Your task to perform on an android device: delete browsing data in the chrome app Image 0: 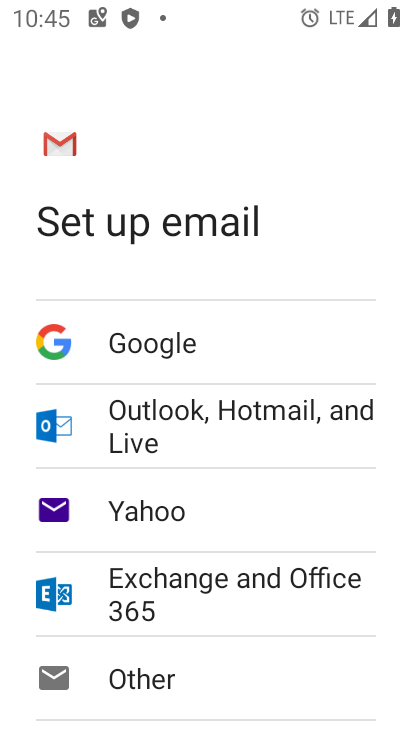
Step 0: press home button
Your task to perform on an android device: delete browsing data in the chrome app Image 1: 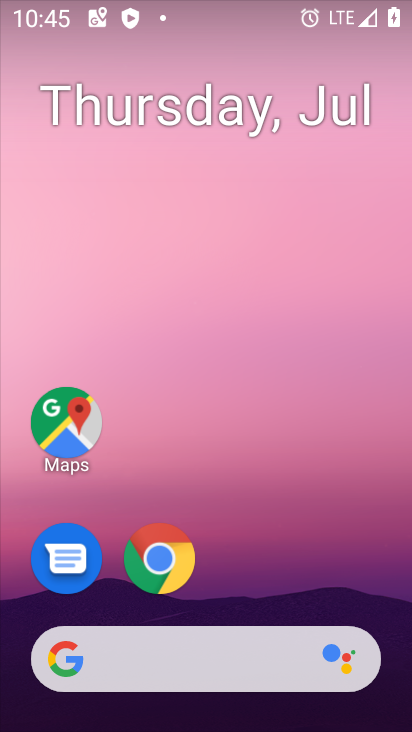
Step 1: drag from (316, 562) to (341, 58)
Your task to perform on an android device: delete browsing data in the chrome app Image 2: 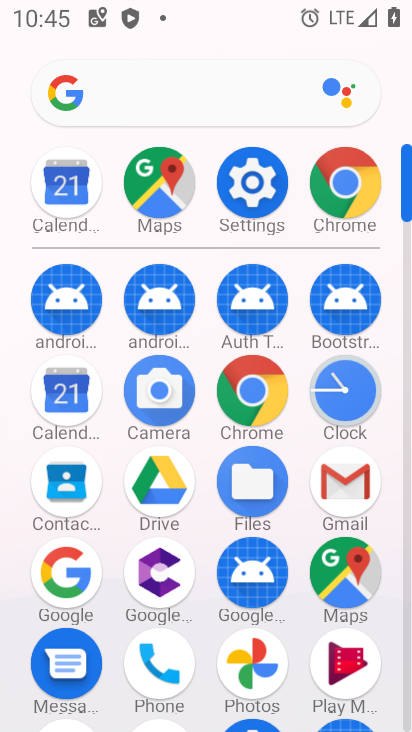
Step 2: click (341, 200)
Your task to perform on an android device: delete browsing data in the chrome app Image 3: 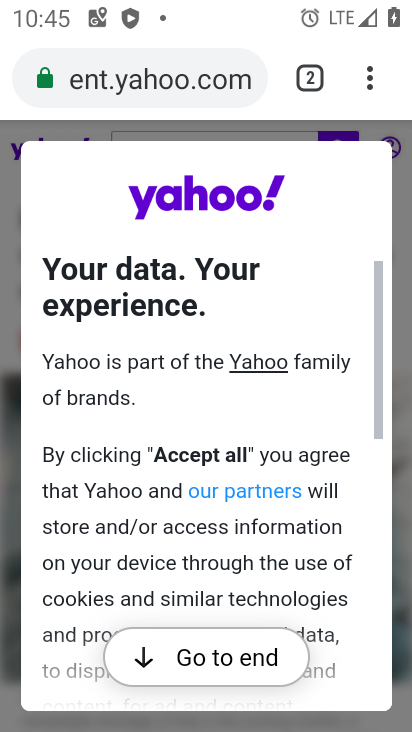
Step 3: click (365, 94)
Your task to perform on an android device: delete browsing data in the chrome app Image 4: 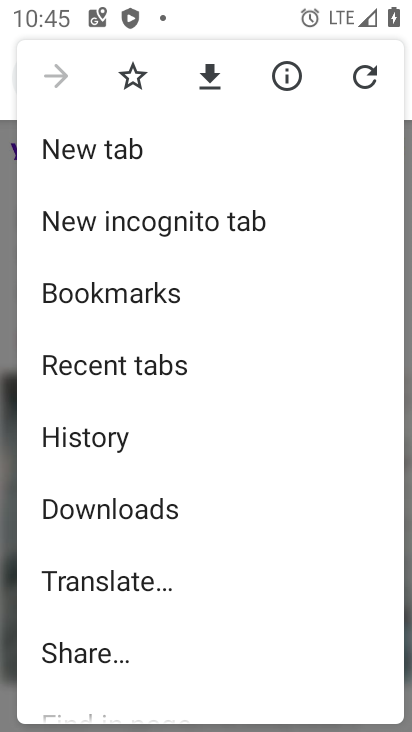
Step 4: drag from (315, 472) to (326, 314)
Your task to perform on an android device: delete browsing data in the chrome app Image 5: 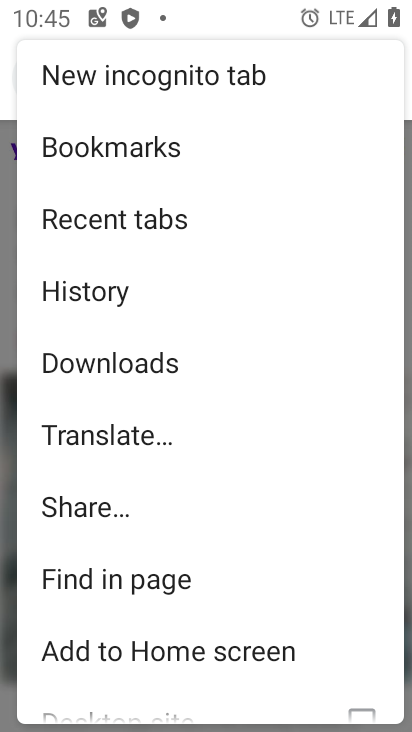
Step 5: drag from (306, 470) to (318, 360)
Your task to perform on an android device: delete browsing data in the chrome app Image 6: 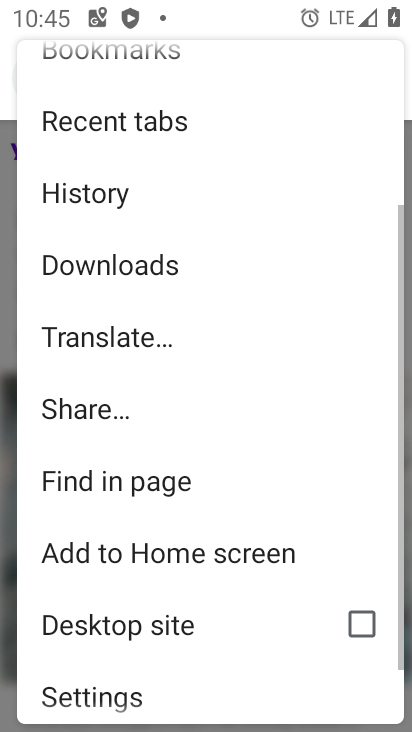
Step 6: drag from (317, 471) to (319, 296)
Your task to perform on an android device: delete browsing data in the chrome app Image 7: 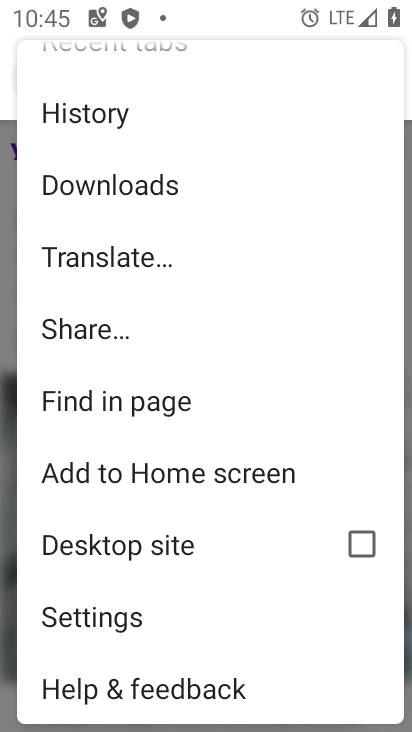
Step 7: click (276, 615)
Your task to perform on an android device: delete browsing data in the chrome app Image 8: 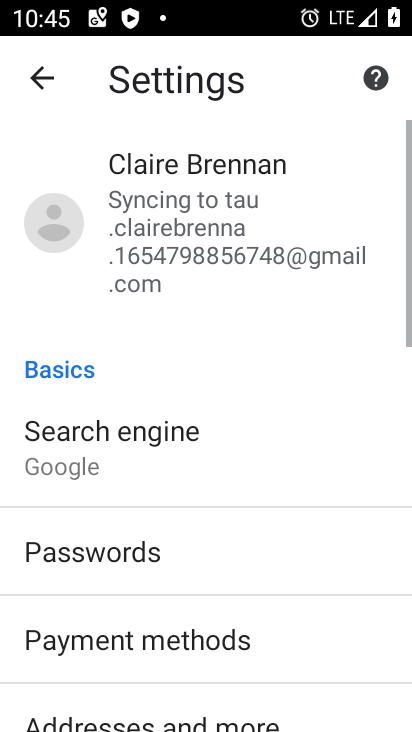
Step 8: drag from (300, 584) to (306, 470)
Your task to perform on an android device: delete browsing data in the chrome app Image 9: 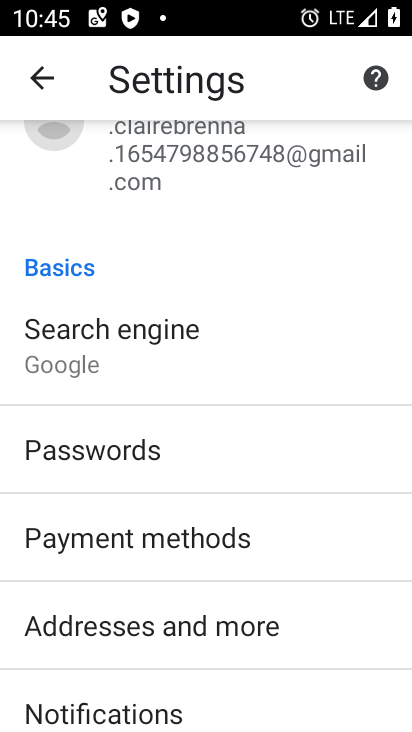
Step 9: drag from (317, 613) to (321, 515)
Your task to perform on an android device: delete browsing data in the chrome app Image 10: 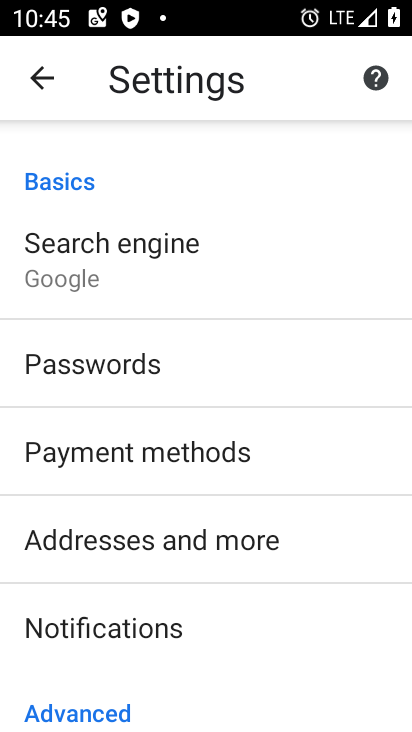
Step 10: drag from (320, 615) to (325, 520)
Your task to perform on an android device: delete browsing data in the chrome app Image 11: 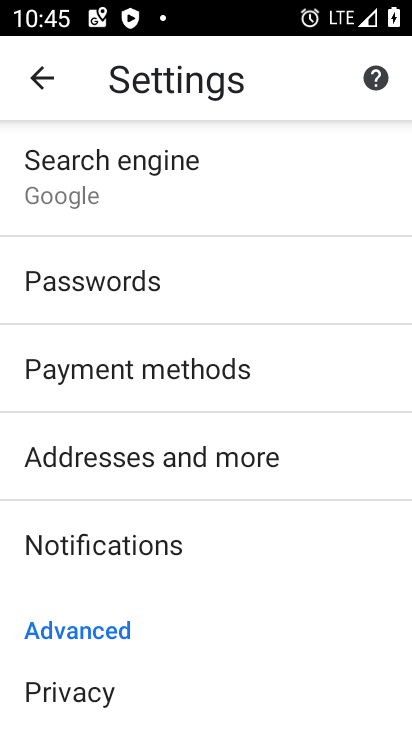
Step 11: drag from (331, 596) to (332, 521)
Your task to perform on an android device: delete browsing data in the chrome app Image 12: 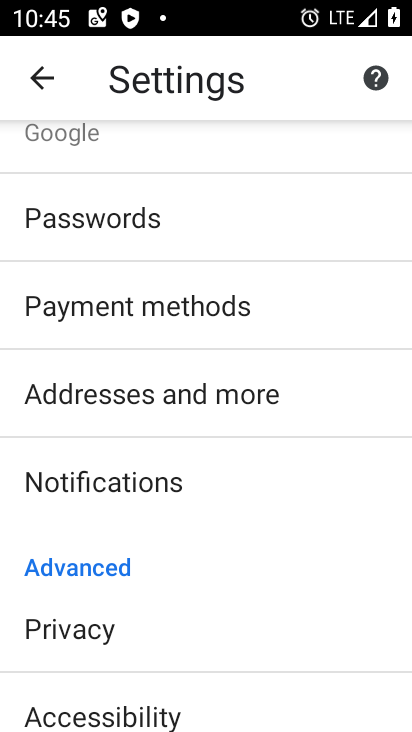
Step 12: drag from (320, 616) to (317, 482)
Your task to perform on an android device: delete browsing data in the chrome app Image 13: 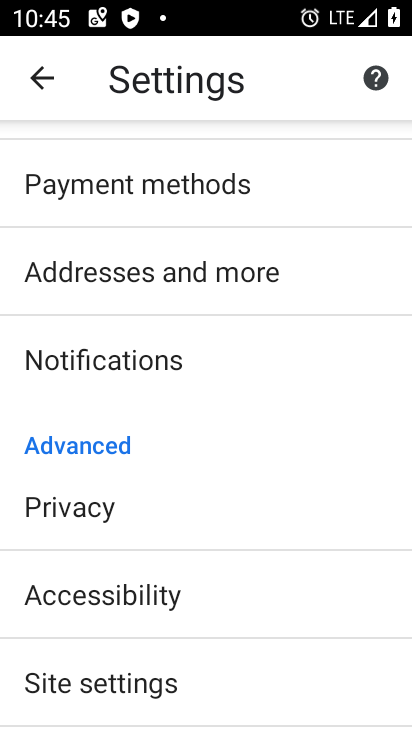
Step 13: drag from (311, 580) to (311, 470)
Your task to perform on an android device: delete browsing data in the chrome app Image 14: 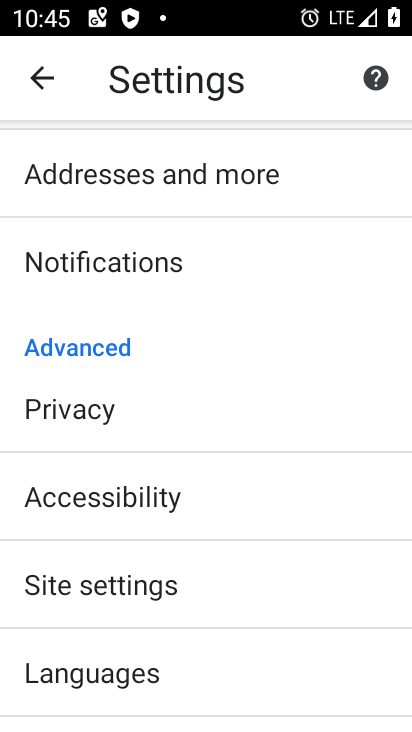
Step 14: drag from (312, 589) to (327, 410)
Your task to perform on an android device: delete browsing data in the chrome app Image 15: 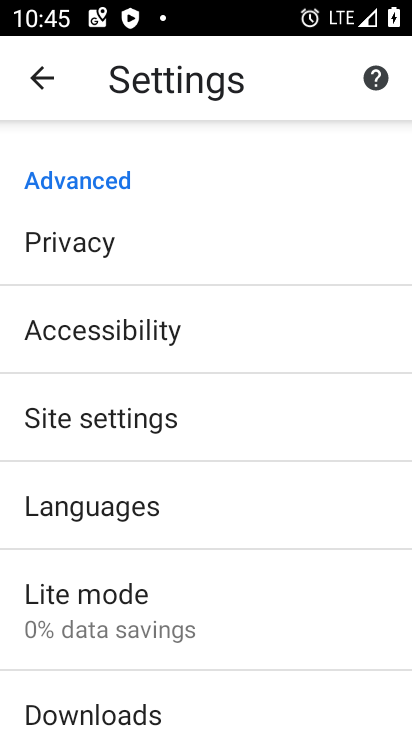
Step 15: click (278, 244)
Your task to perform on an android device: delete browsing data in the chrome app Image 16: 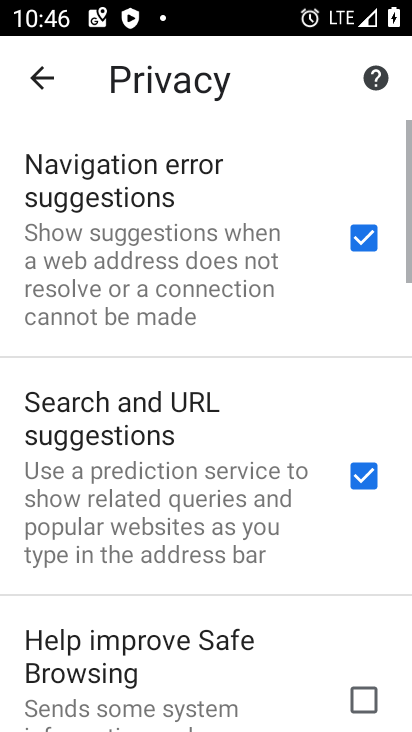
Step 16: drag from (296, 471) to (294, 360)
Your task to perform on an android device: delete browsing data in the chrome app Image 17: 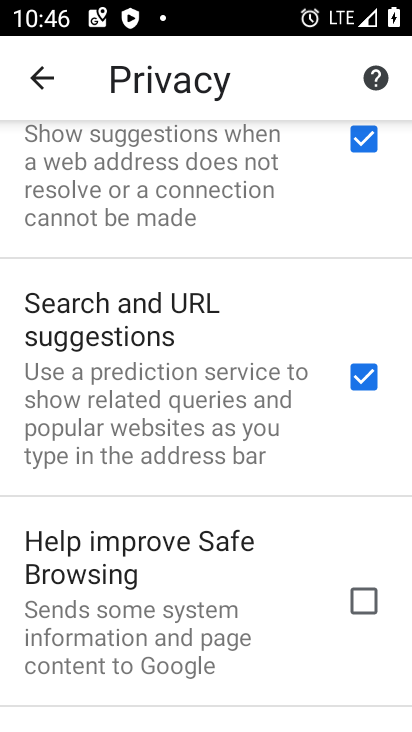
Step 17: drag from (293, 525) to (296, 428)
Your task to perform on an android device: delete browsing data in the chrome app Image 18: 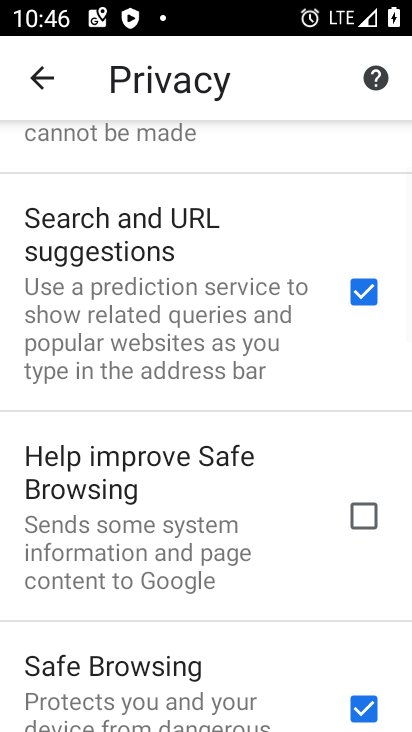
Step 18: drag from (288, 566) to (280, 419)
Your task to perform on an android device: delete browsing data in the chrome app Image 19: 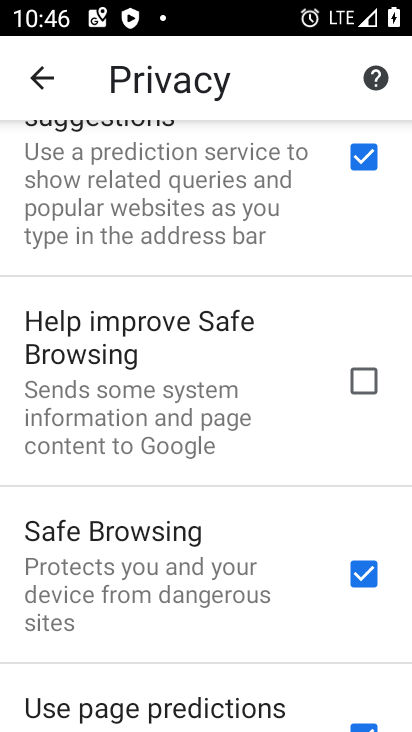
Step 19: drag from (289, 574) to (289, 441)
Your task to perform on an android device: delete browsing data in the chrome app Image 20: 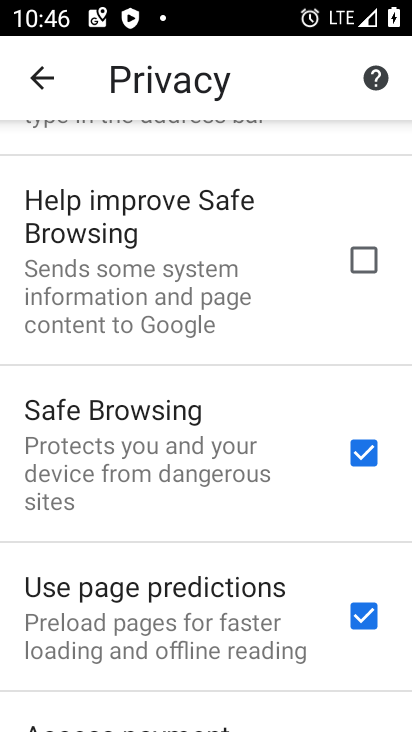
Step 20: drag from (279, 627) to (273, 465)
Your task to perform on an android device: delete browsing data in the chrome app Image 21: 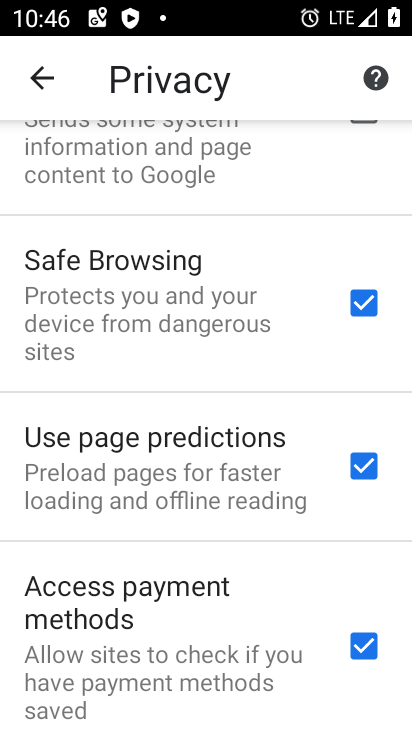
Step 21: drag from (274, 614) to (280, 469)
Your task to perform on an android device: delete browsing data in the chrome app Image 22: 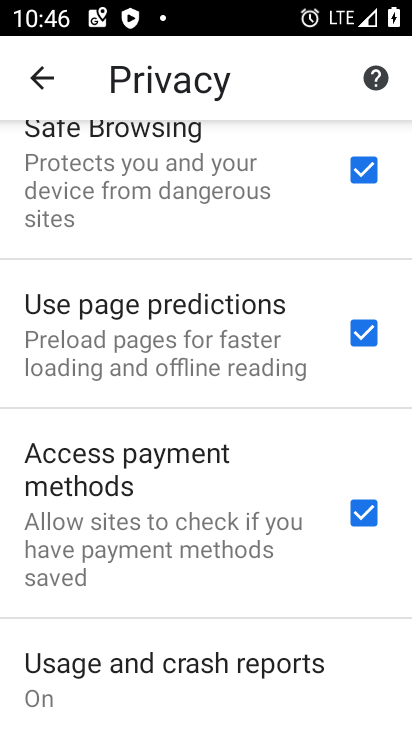
Step 22: drag from (280, 606) to (274, 461)
Your task to perform on an android device: delete browsing data in the chrome app Image 23: 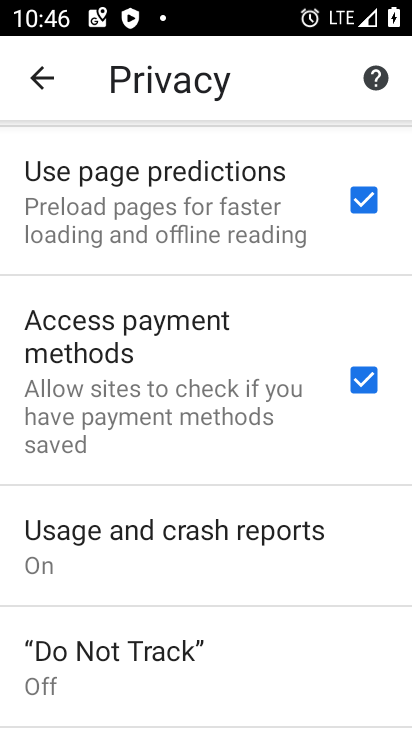
Step 23: drag from (274, 609) to (276, 278)
Your task to perform on an android device: delete browsing data in the chrome app Image 24: 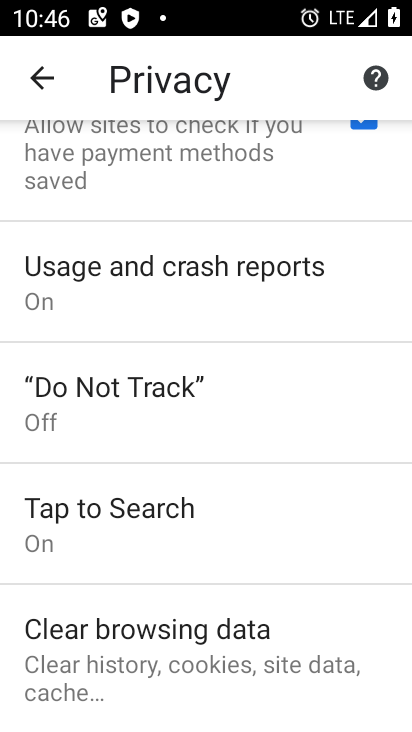
Step 24: click (285, 634)
Your task to perform on an android device: delete browsing data in the chrome app Image 25: 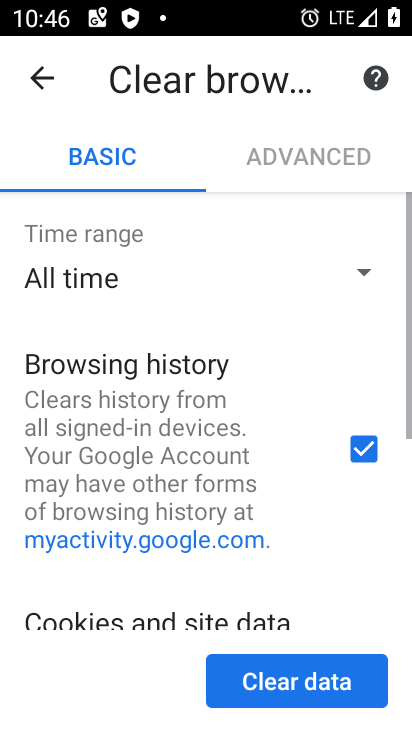
Step 25: click (289, 680)
Your task to perform on an android device: delete browsing data in the chrome app Image 26: 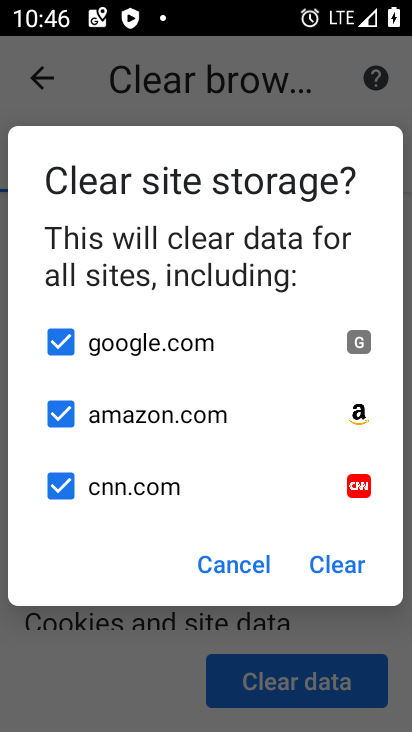
Step 26: click (353, 557)
Your task to perform on an android device: delete browsing data in the chrome app Image 27: 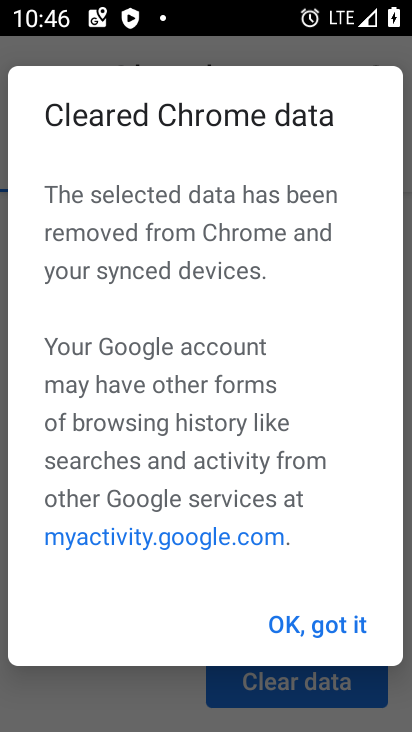
Step 27: click (365, 633)
Your task to perform on an android device: delete browsing data in the chrome app Image 28: 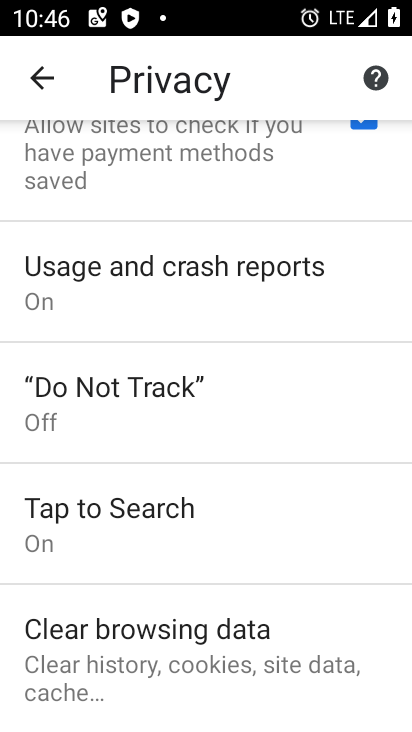
Step 28: task complete